Your task to perform on an android device: turn off priority inbox in the gmail app Image 0: 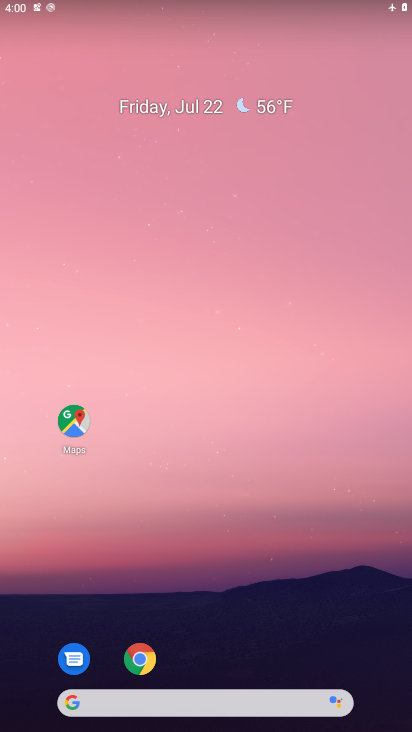
Step 0: drag from (156, 686) to (158, 310)
Your task to perform on an android device: turn off priority inbox in the gmail app Image 1: 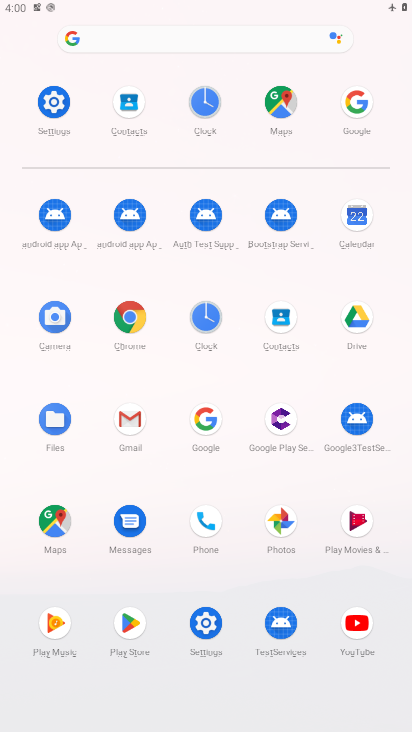
Step 1: click (121, 422)
Your task to perform on an android device: turn off priority inbox in the gmail app Image 2: 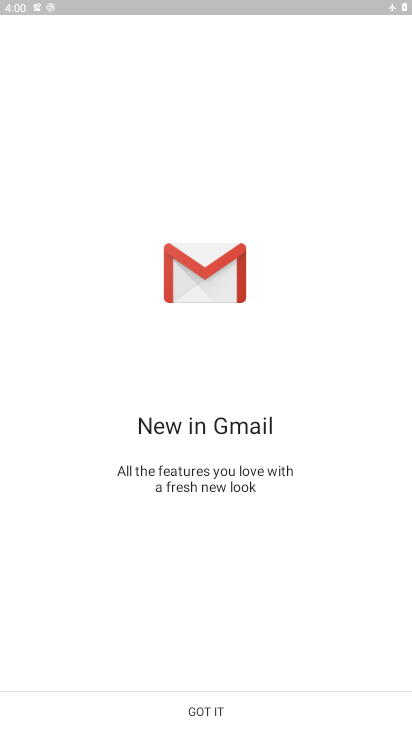
Step 2: click (202, 704)
Your task to perform on an android device: turn off priority inbox in the gmail app Image 3: 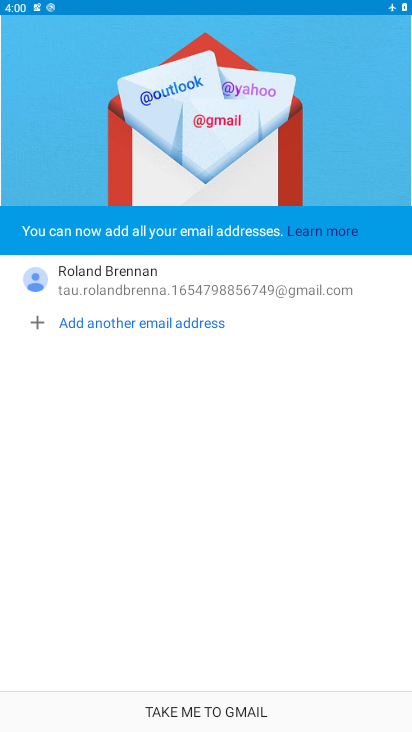
Step 3: click (201, 704)
Your task to perform on an android device: turn off priority inbox in the gmail app Image 4: 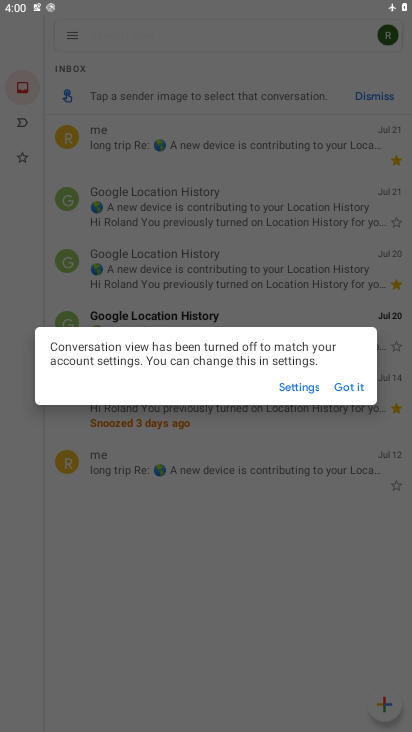
Step 4: click (347, 392)
Your task to perform on an android device: turn off priority inbox in the gmail app Image 5: 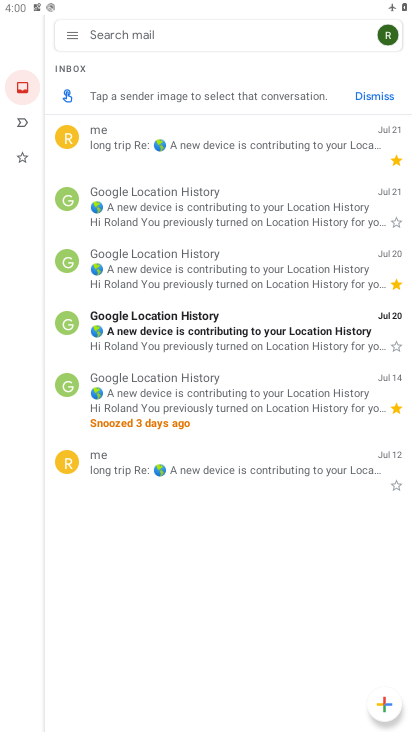
Step 5: click (67, 40)
Your task to perform on an android device: turn off priority inbox in the gmail app Image 6: 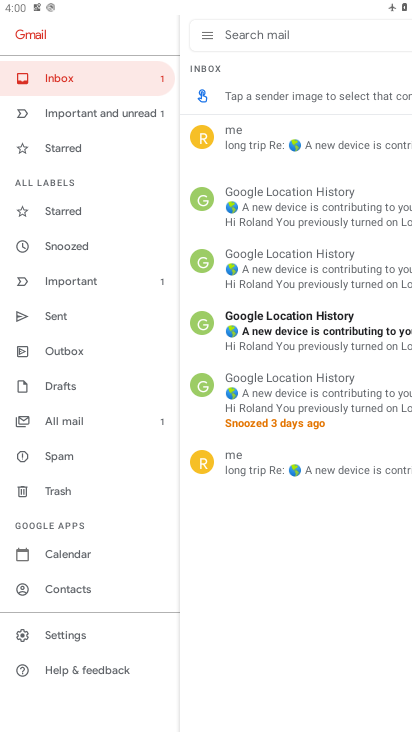
Step 6: click (86, 633)
Your task to perform on an android device: turn off priority inbox in the gmail app Image 7: 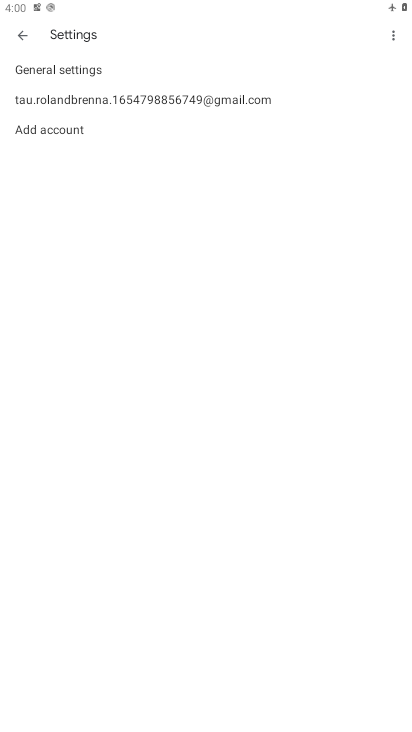
Step 7: click (126, 106)
Your task to perform on an android device: turn off priority inbox in the gmail app Image 8: 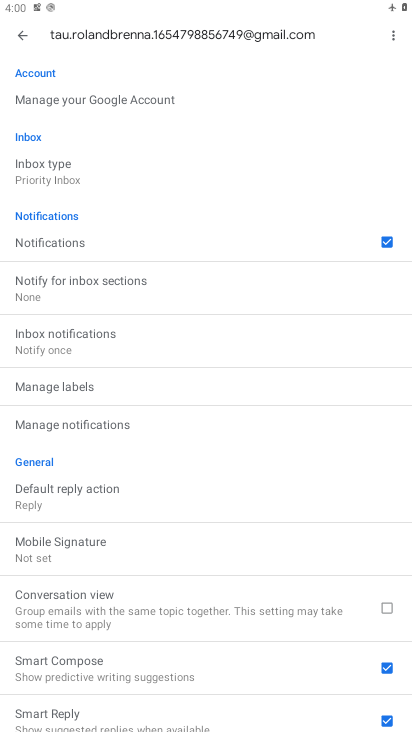
Step 8: click (46, 171)
Your task to perform on an android device: turn off priority inbox in the gmail app Image 9: 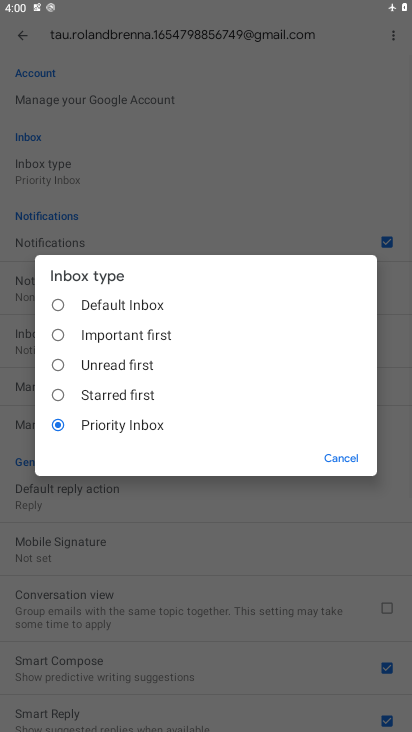
Step 9: click (128, 332)
Your task to perform on an android device: turn off priority inbox in the gmail app Image 10: 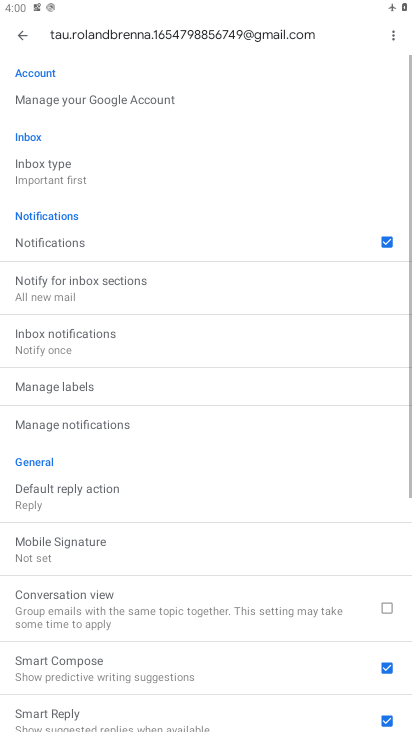
Step 10: task complete